Your task to perform on an android device: set default search engine in the chrome app Image 0: 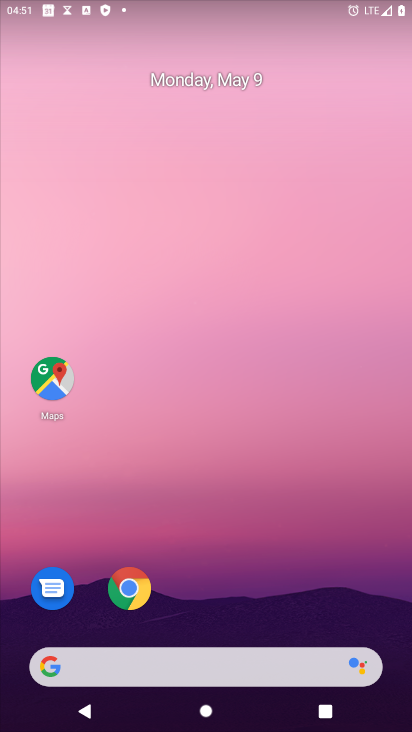
Step 0: click (134, 597)
Your task to perform on an android device: set default search engine in the chrome app Image 1: 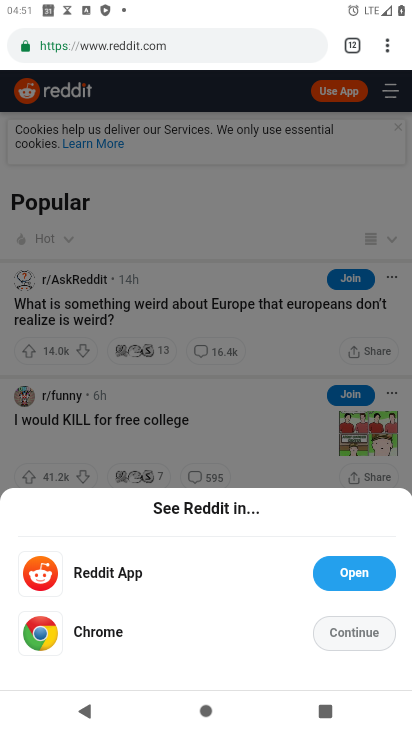
Step 1: click (386, 48)
Your task to perform on an android device: set default search engine in the chrome app Image 2: 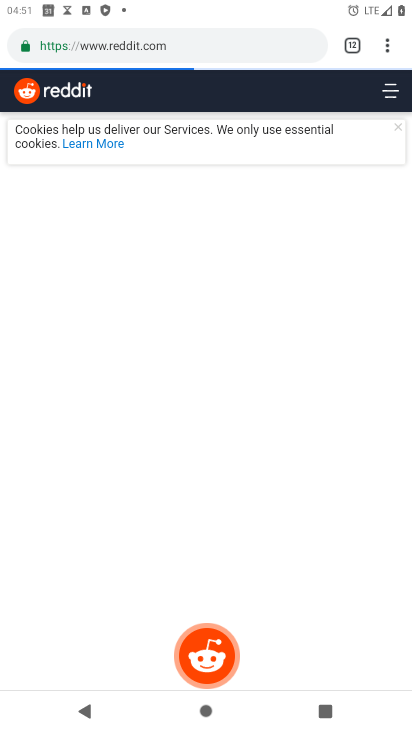
Step 2: click (391, 45)
Your task to perform on an android device: set default search engine in the chrome app Image 3: 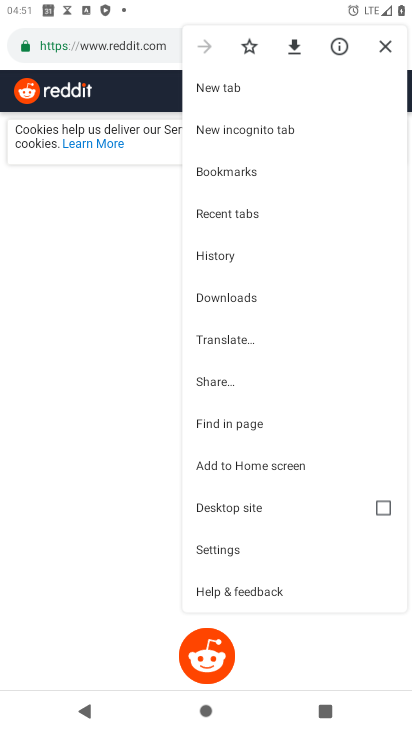
Step 3: click (244, 540)
Your task to perform on an android device: set default search engine in the chrome app Image 4: 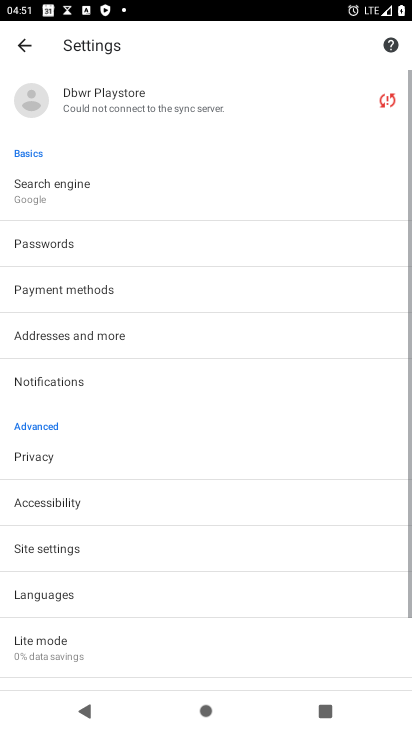
Step 4: click (77, 192)
Your task to perform on an android device: set default search engine in the chrome app Image 5: 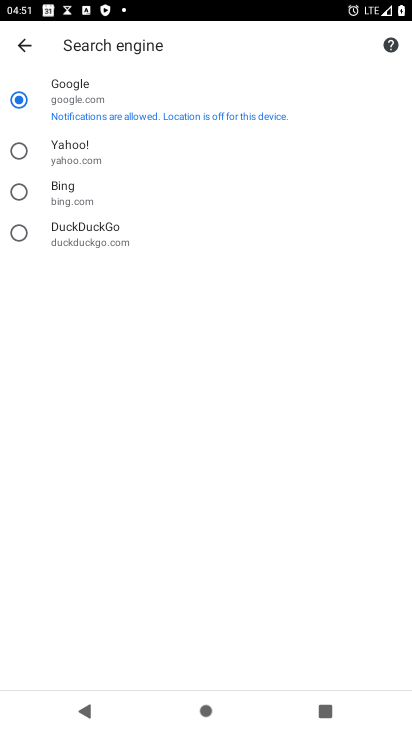
Step 5: click (132, 90)
Your task to perform on an android device: set default search engine in the chrome app Image 6: 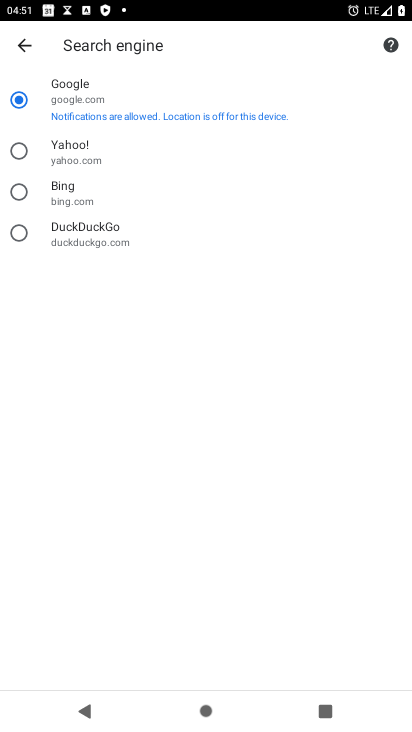
Step 6: task complete